Your task to perform on an android device: What's on my calendar tomorrow? Image 0: 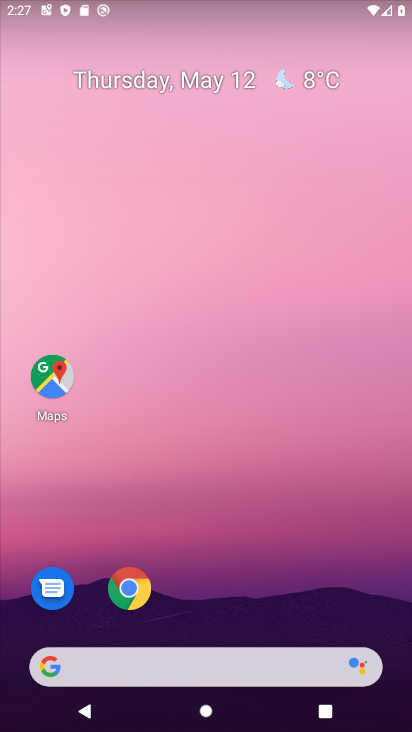
Step 0: drag from (231, 514) to (208, 18)
Your task to perform on an android device: What's on my calendar tomorrow? Image 1: 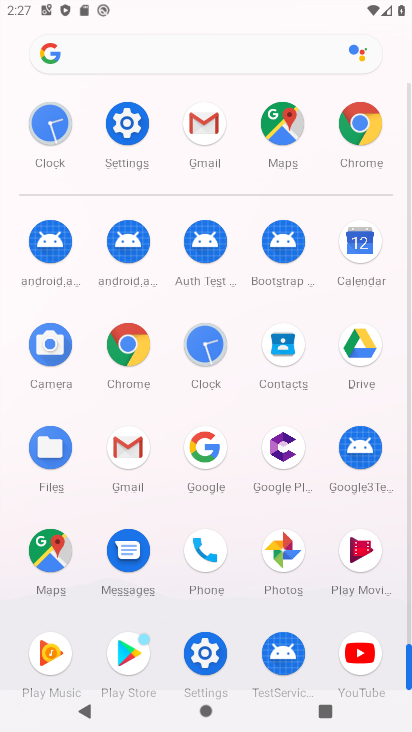
Step 1: click (361, 237)
Your task to perform on an android device: What's on my calendar tomorrow? Image 2: 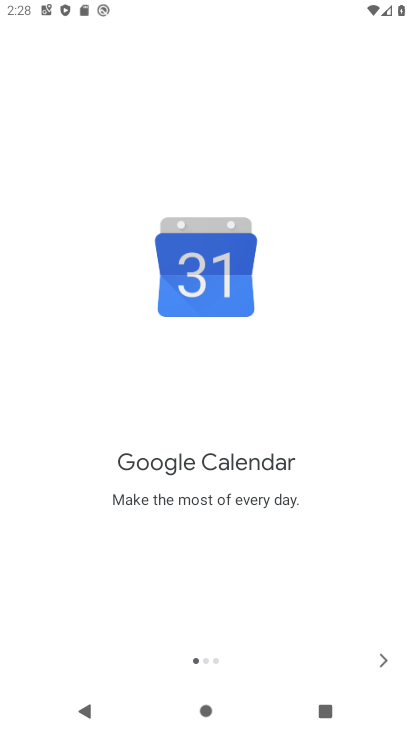
Step 2: click (386, 656)
Your task to perform on an android device: What's on my calendar tomorrow? Image 3: 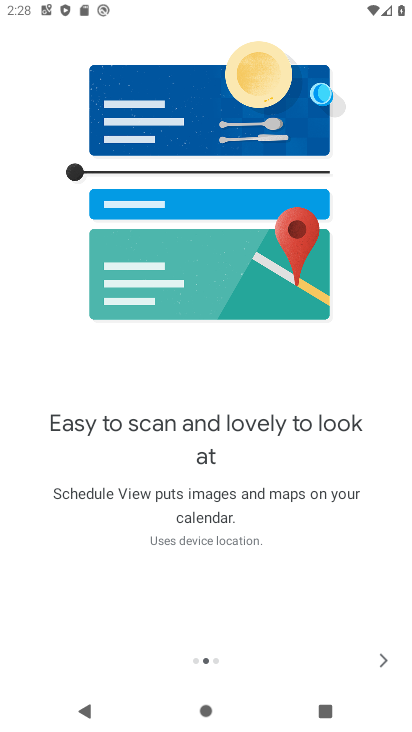
Step 3: click (386, 655)
Your task to perform on an android device: What's on my calendar tomorrow? Image 4: 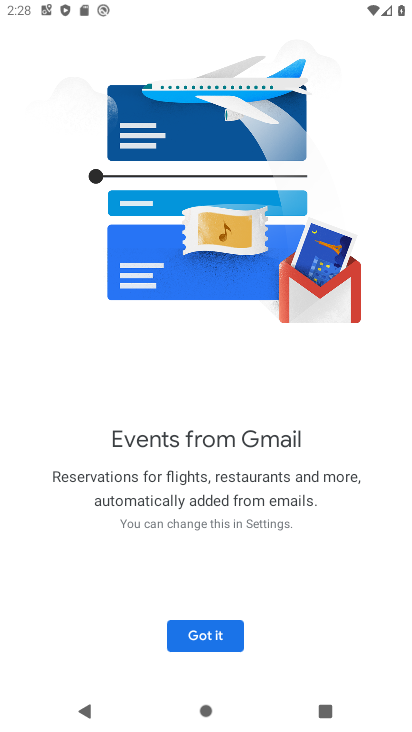
Step 4: click (386, 655)
Your task to perform on an android device: What's on my calendar tomorrow? Image 5: 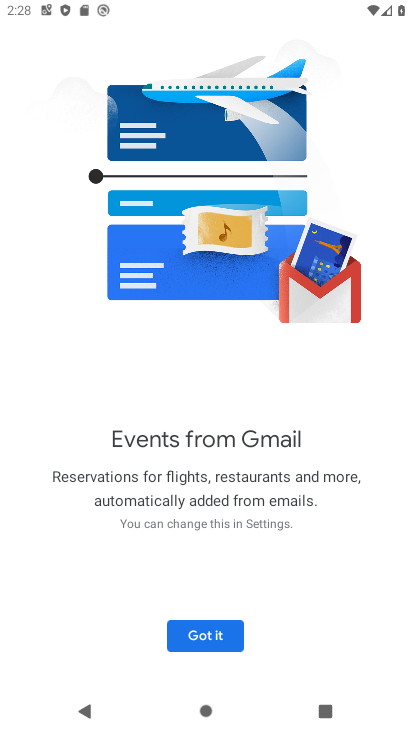
Step 5: click (217, 623)
Your task to perform on an android device: What's on my calendar tomorrow? Image 6: 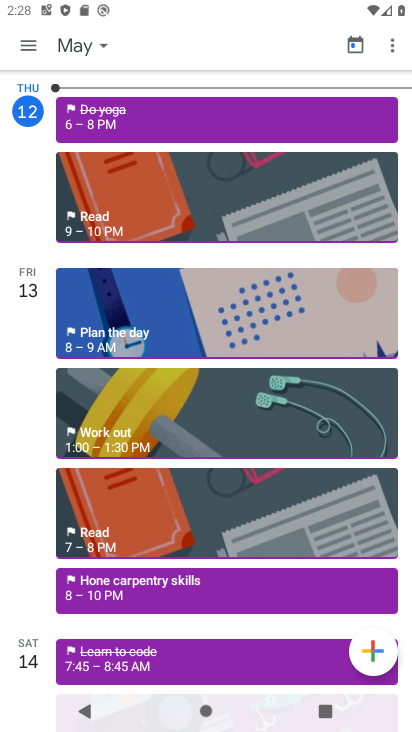
Step 6: click (80, 45)
Your task to perform on an android device: What's on my calendar tomorrow? Image 7: 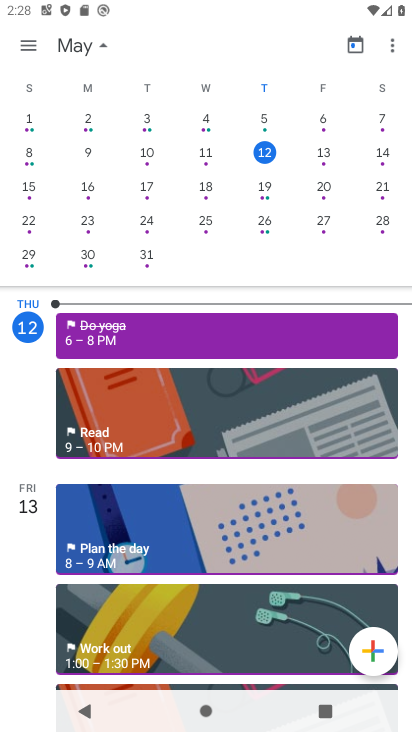
Step 7: click (324, 150)
Your task to perform on an android device: What's on my calendar tomorrow? Image 8: 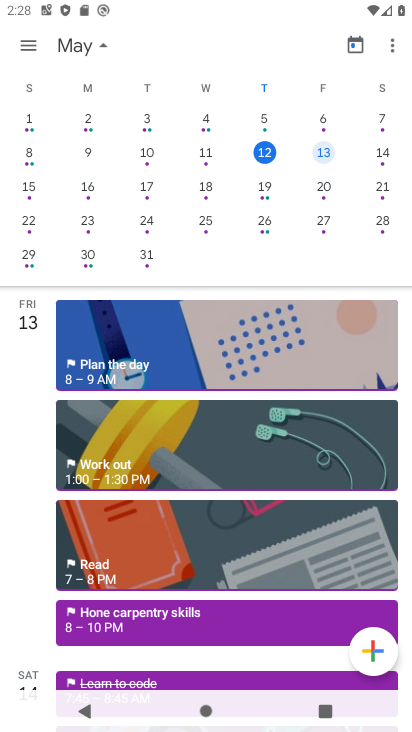
Step 8: task complete